Your task to perform on an android device: change notification settings in the gmail app Image 0: 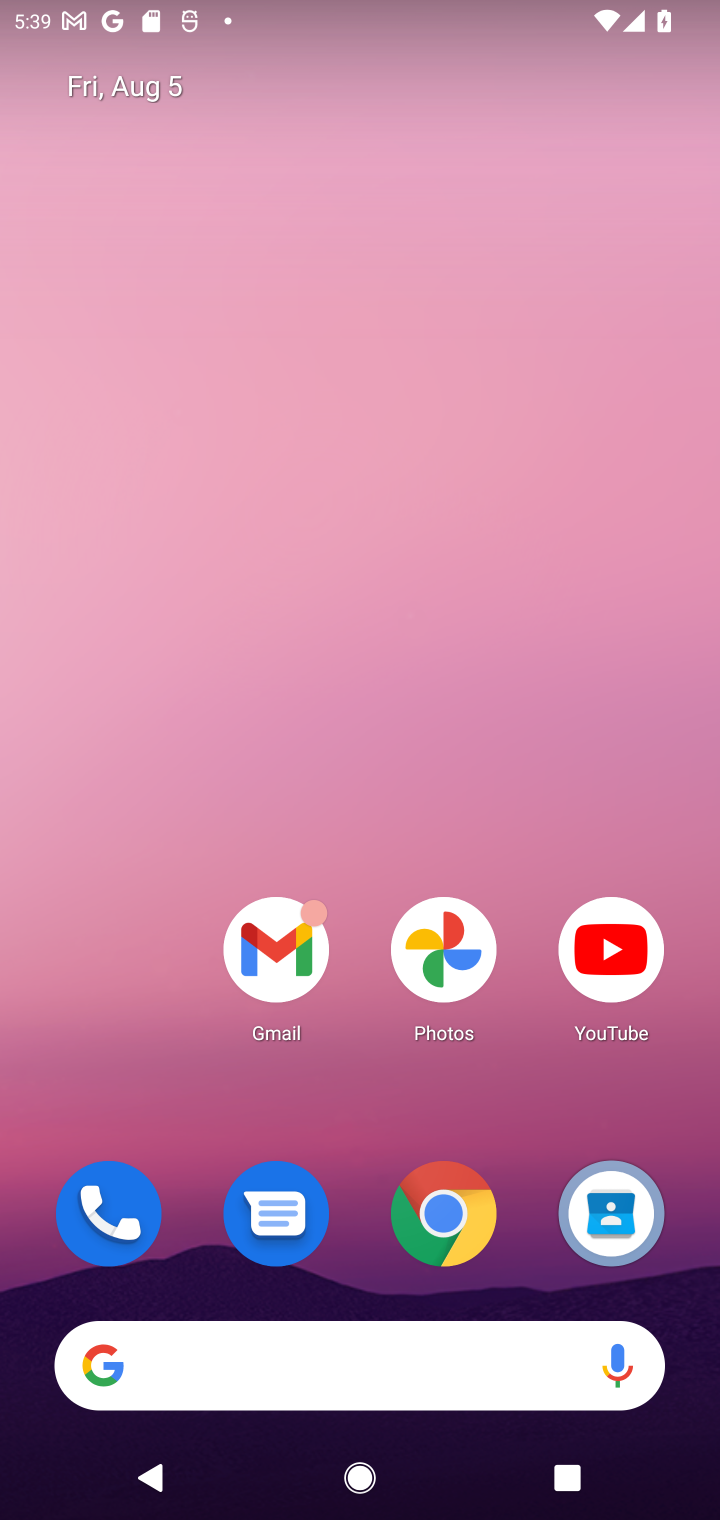
Step 0: click (298, 994)
Your task to perform on an android device: change notification settings in the gmail app Image 1: 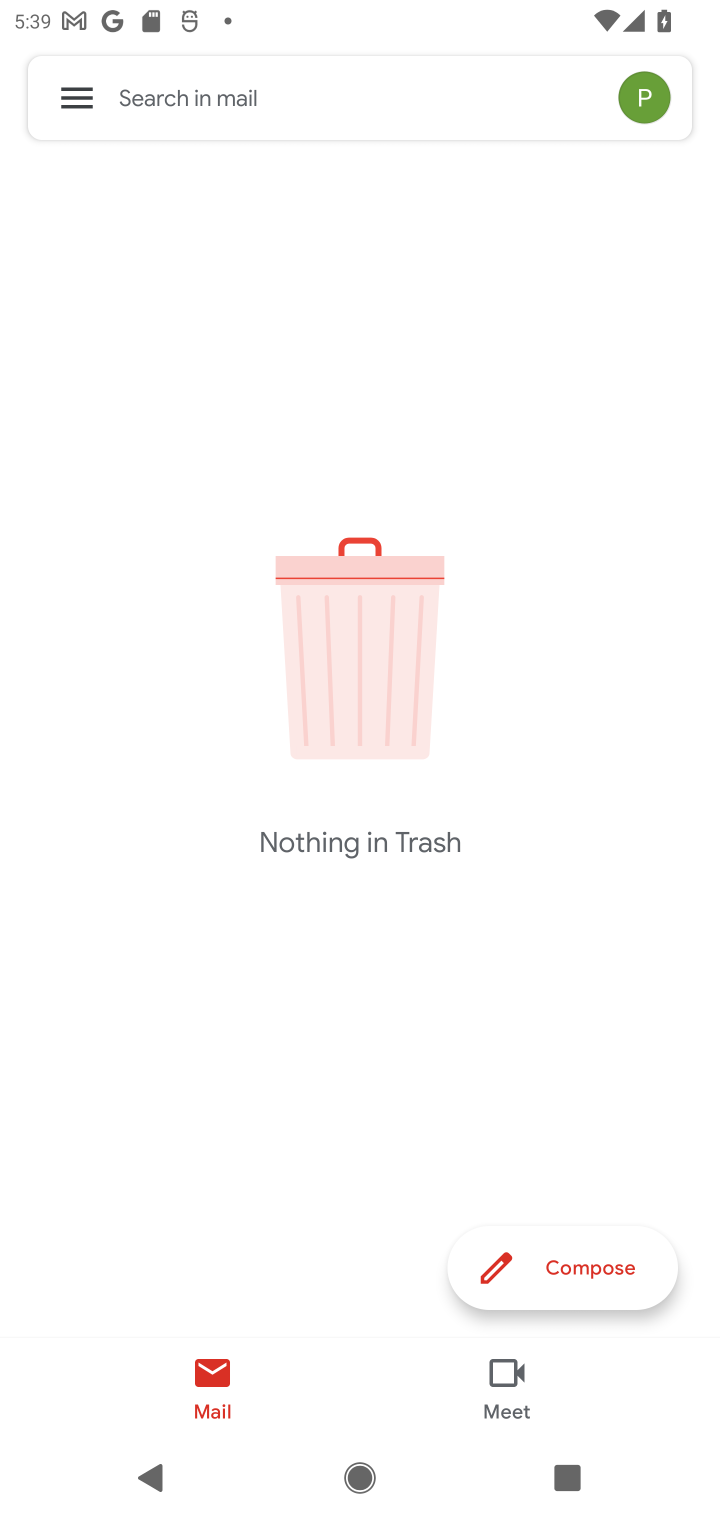
Step 1: click (86, 127)
Your task to perform on an android device: change notification settings in the gmail app Image 2: 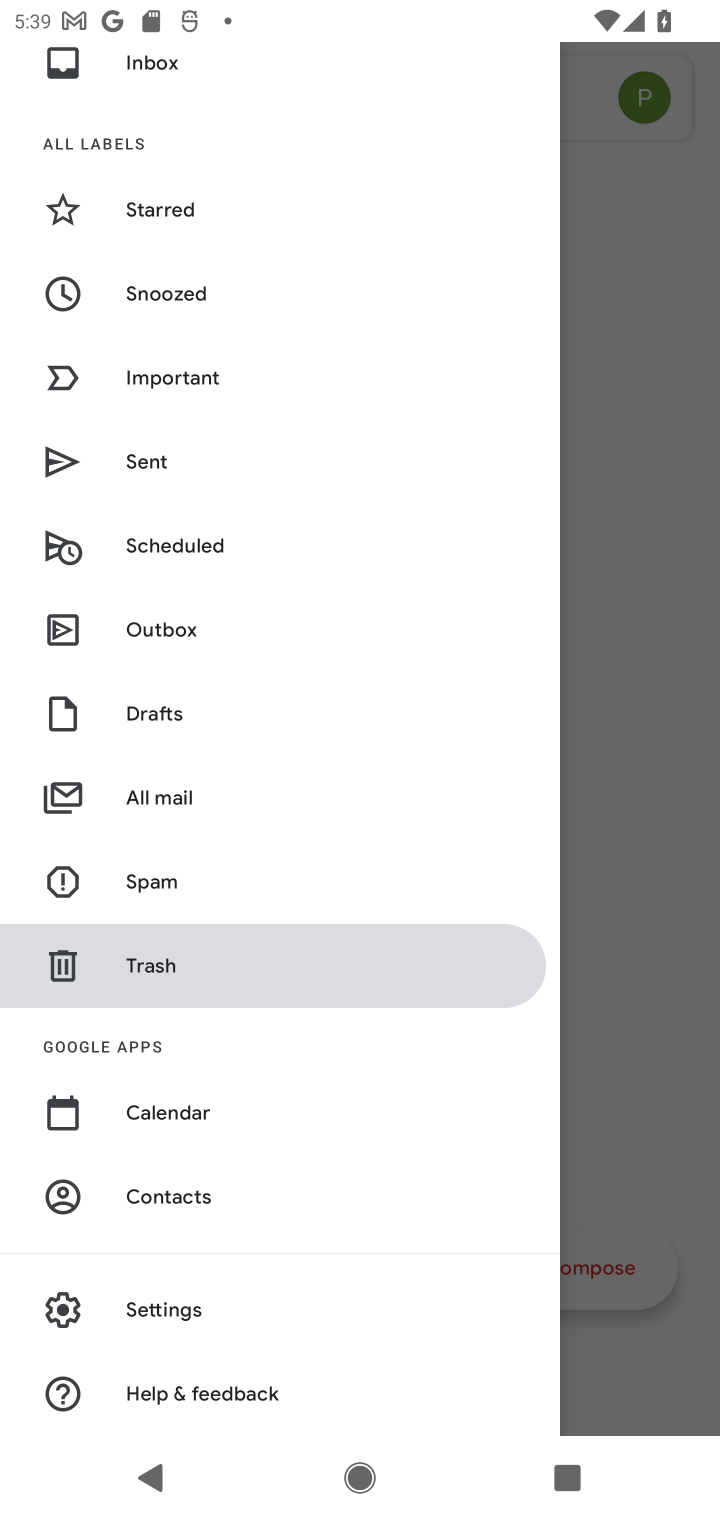
Step 2: click (230, 1332)
Your task to perform on an android device: change notification settings in the gmail app Image 3: 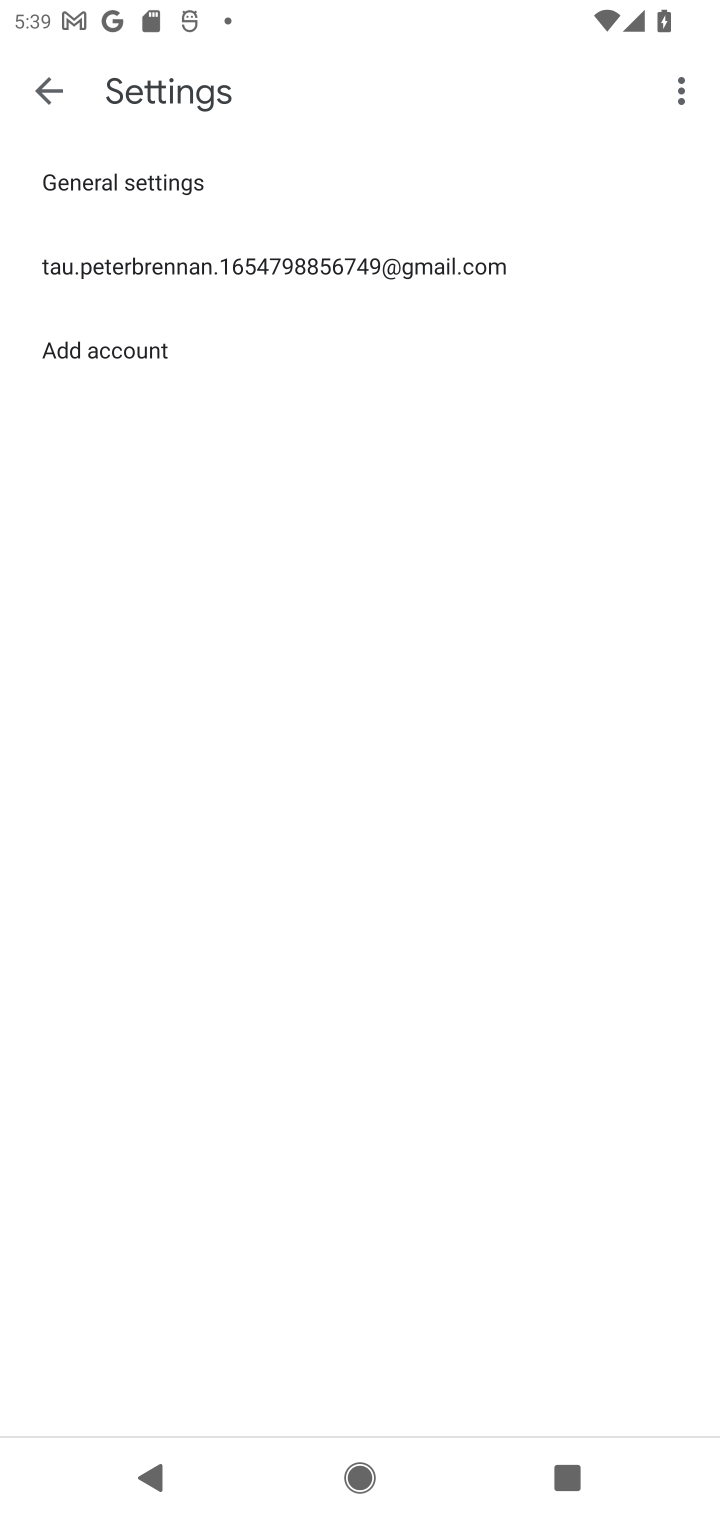
Step 3: click (302, 260)
Your task to perform on an android device: change notification settings in the gmail app Image 4: 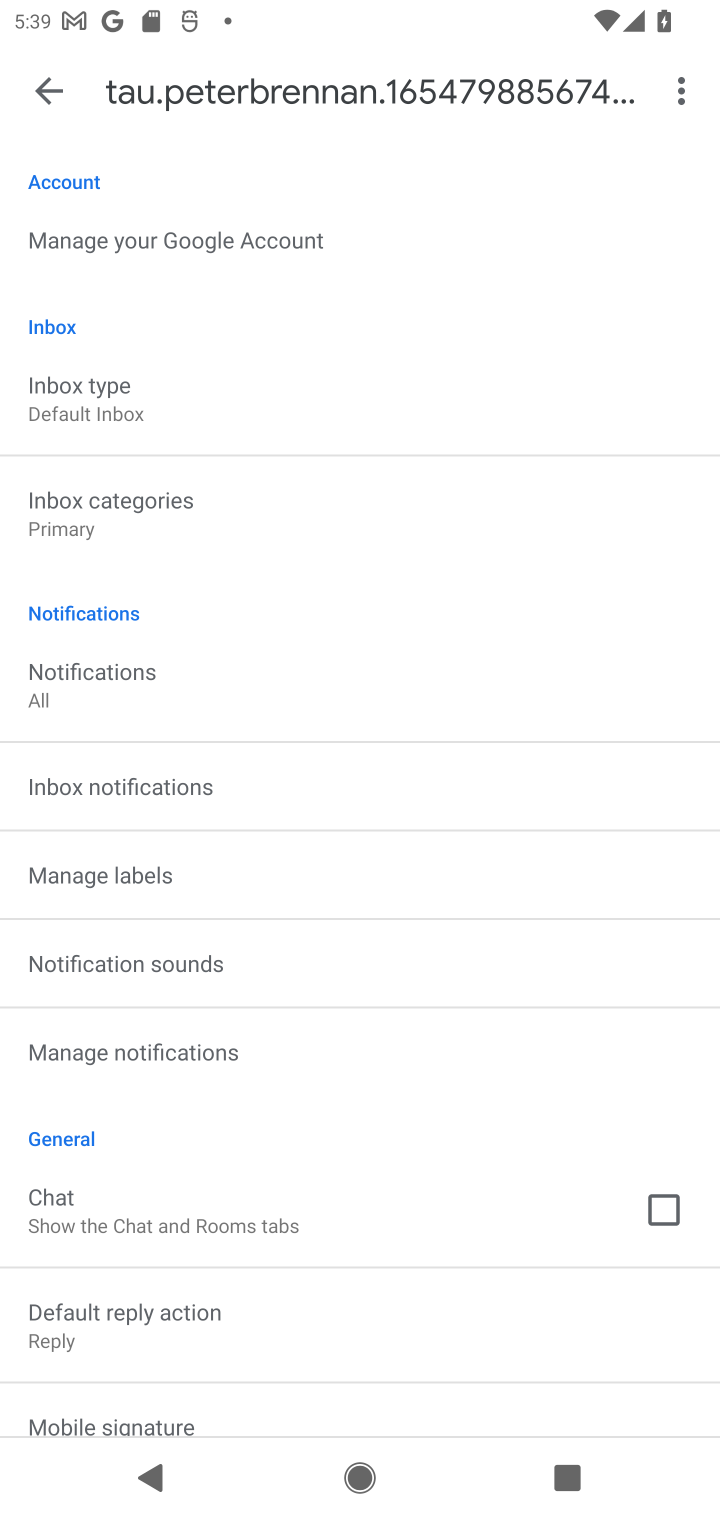
Step 4: task complete